Your task to perform on an android device: Open eBay Image 0: 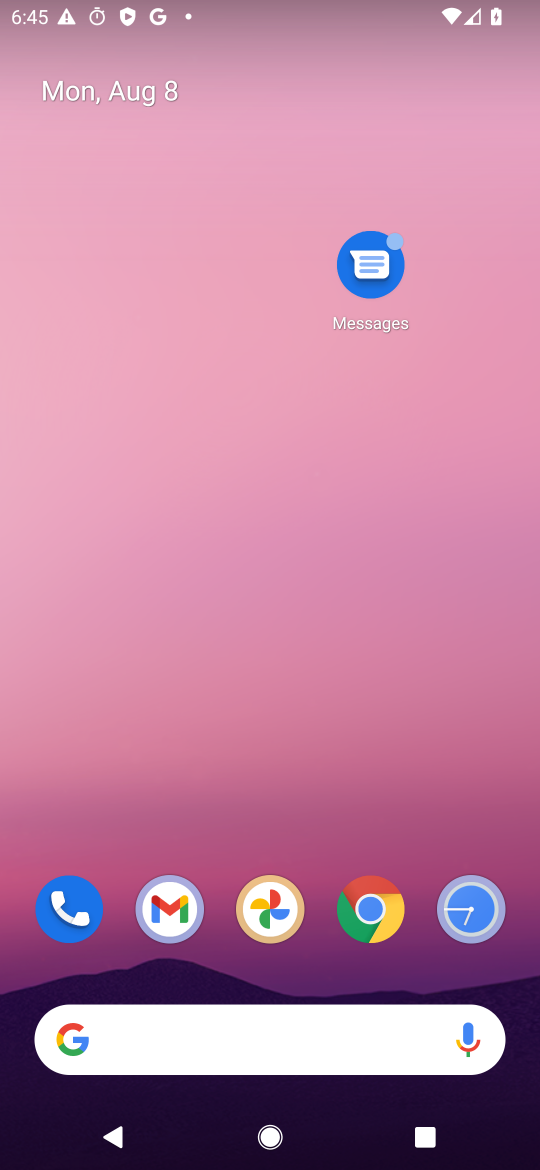
Step 0: click (368, 914)
Your task to perform on an android device: Open eBay Image 1: 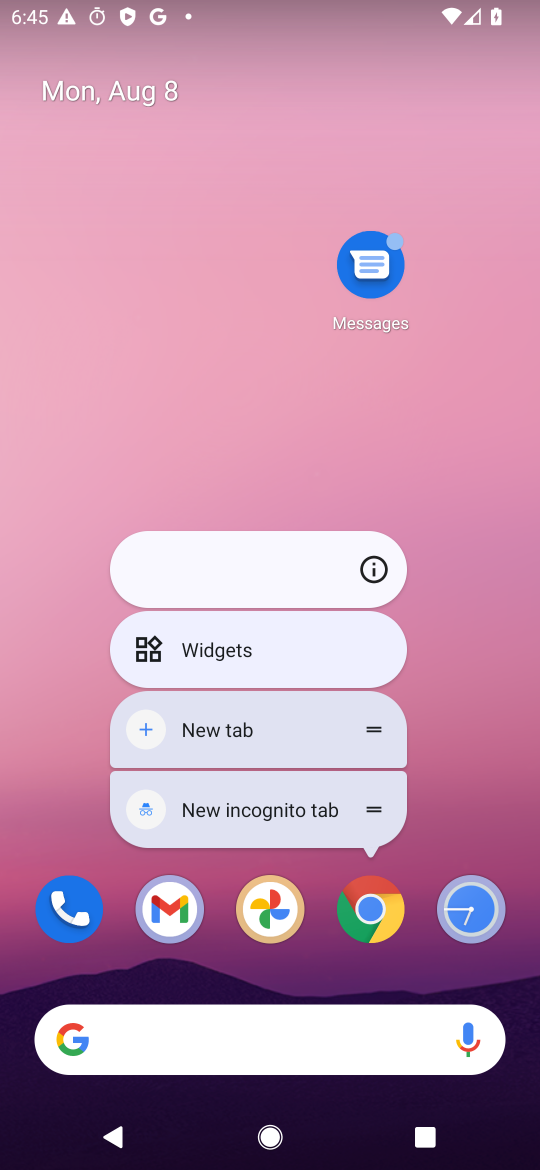
Step 1: click (368, 916)
Your task to perform on an android device: Open eBay Image 2: 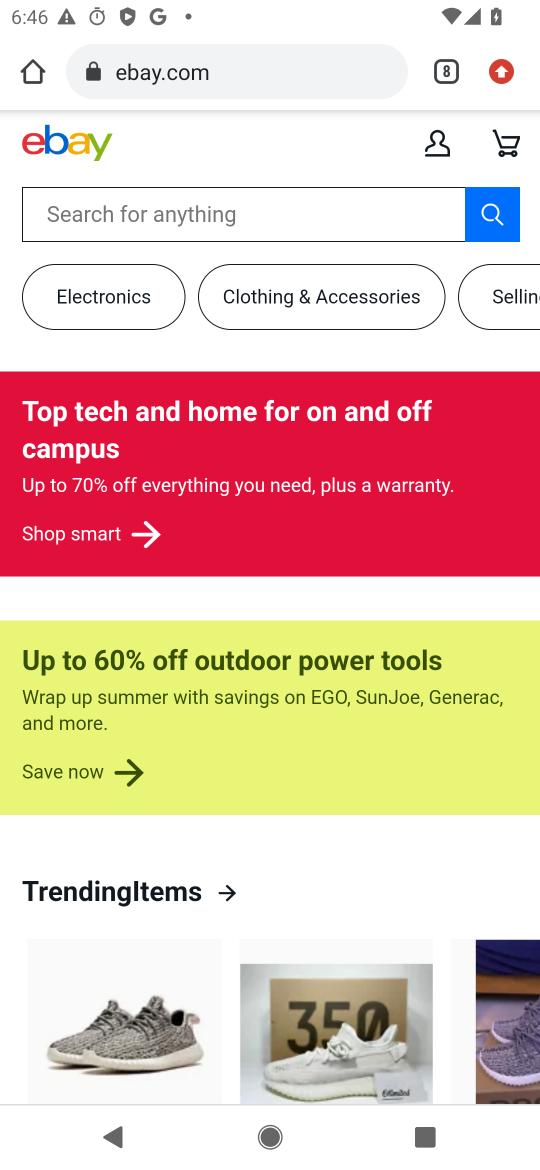
Step 2: task complete